Your task to perform on an android device: Empty the shopping cart on bestbuy.com. Add "amazon basics triple a" to the cart on bestbuy.com, then select checkout. Image 0: 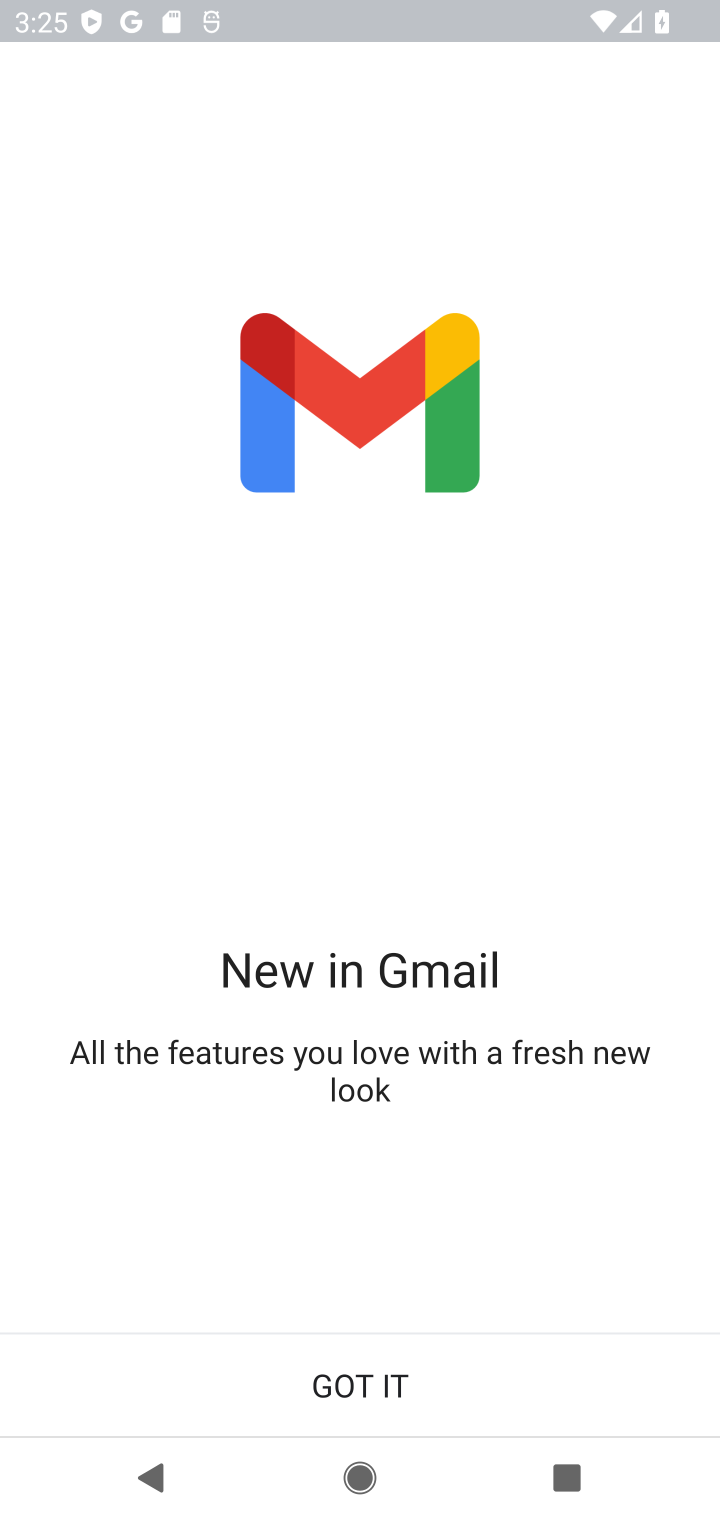
Step 0: press home button
Your task to perform on an android device: Empty the shopping cart on bestbuy.com. Add "amazon basics triple a" to the cart on bestbuy.com, then select checkout. Image 1: 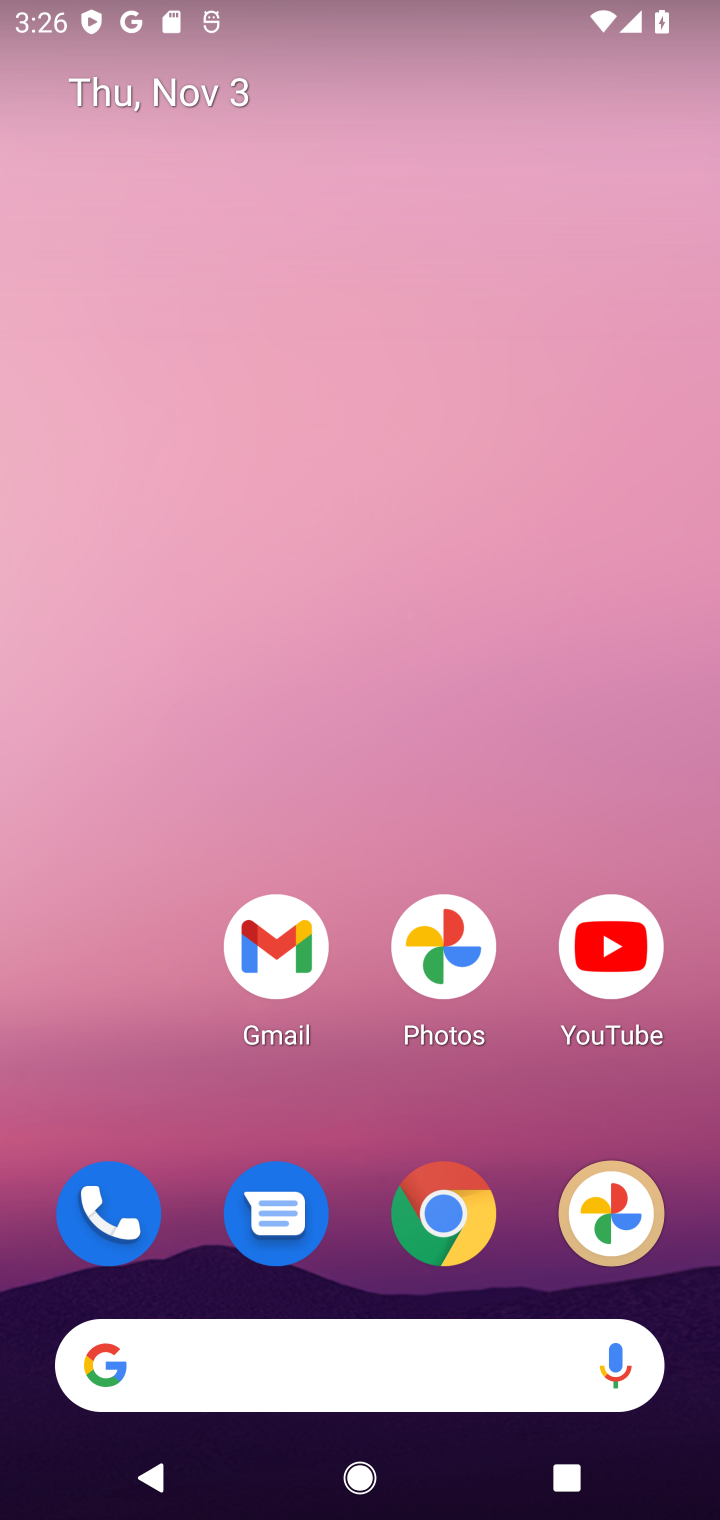
Step 1: click (429, 1217)
Your task to perform on an android device: Empty the shopping cart on bestbuy.com. Add "amazon basics triple a" to the cart on bestbuy.com, then select checkout. Image 2: 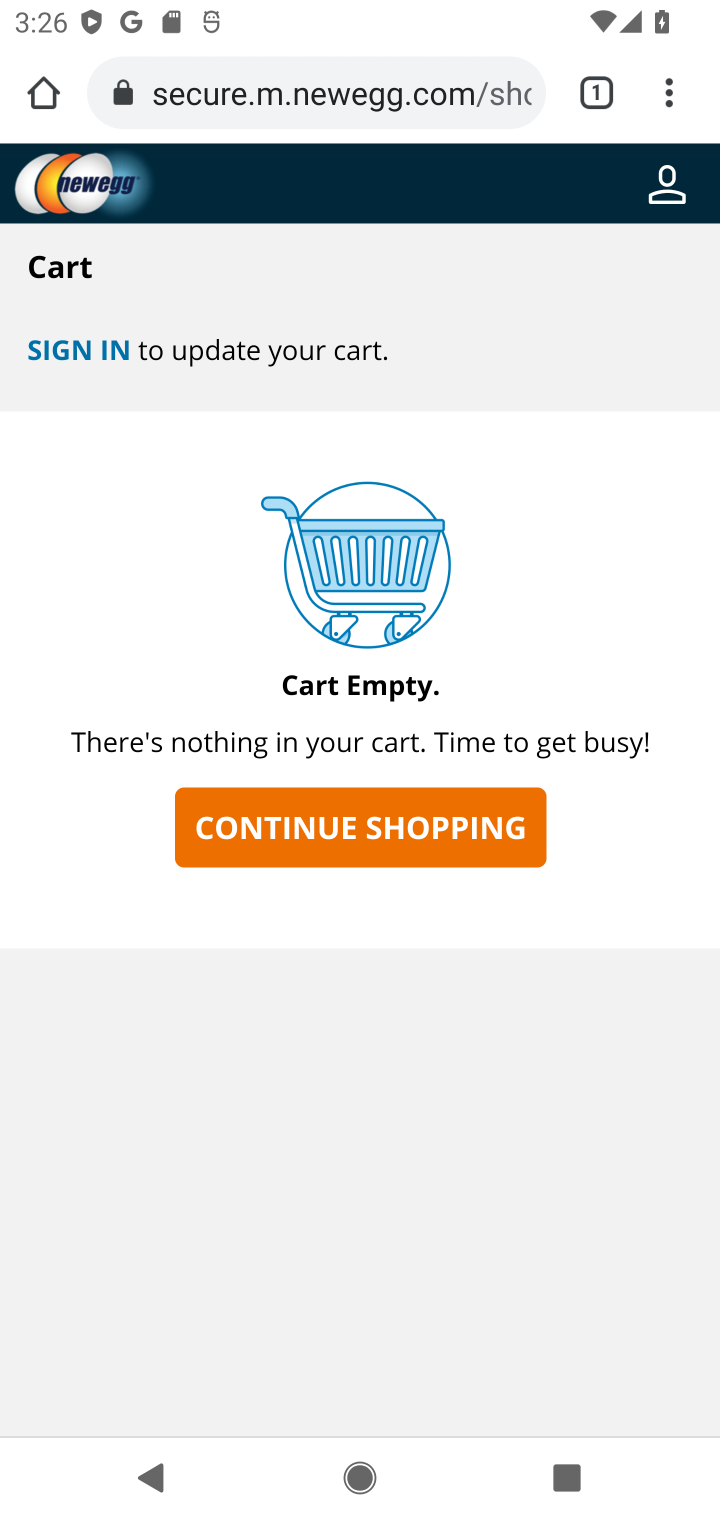
Step 2: click (329, 124)
Your task to perform on an android device: Empty the shopping cart on bestbuy.com. Add "amazon basics triple a" to the cart on bestbuy.com, then select checkout. Image 3: 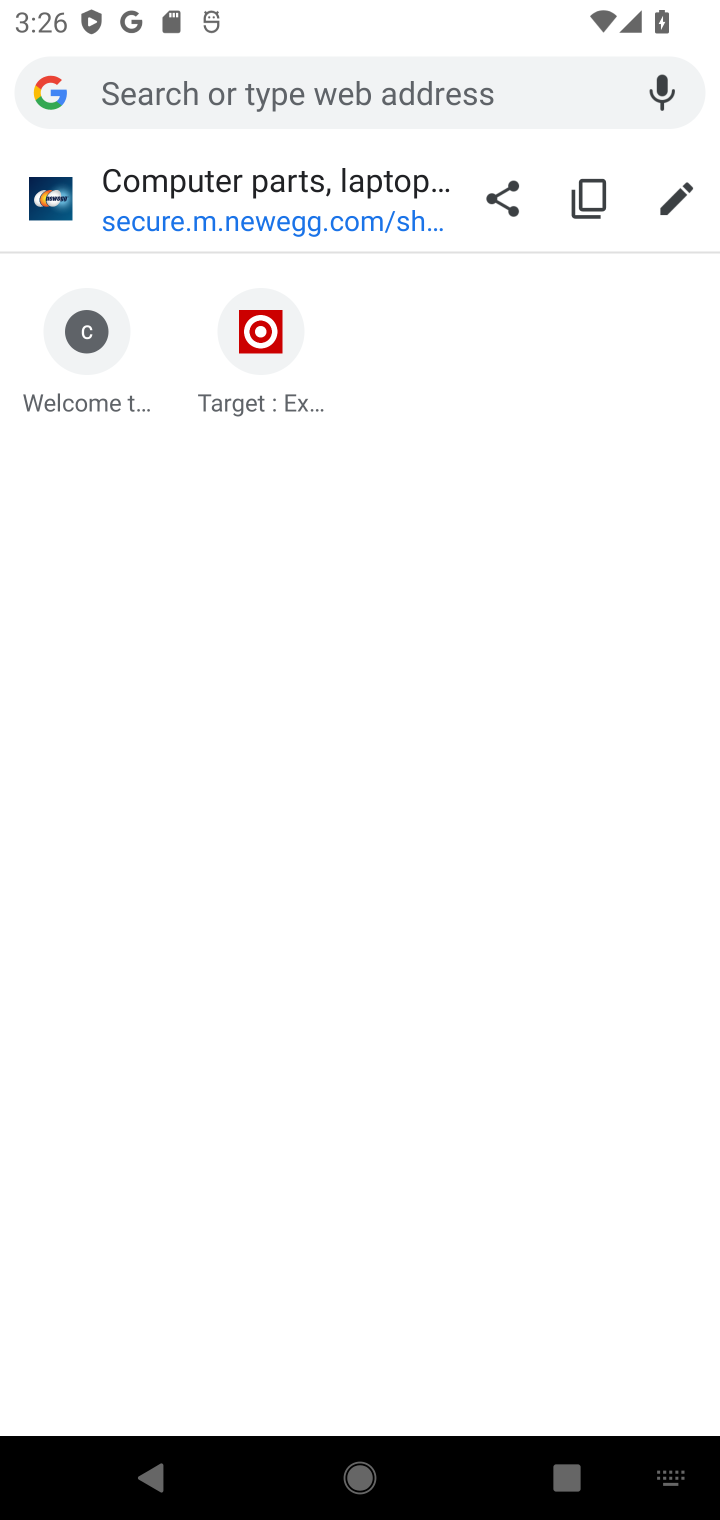
Step 3: type "bestbuy.com"
Your task to perform on an android device: Empty the shopping cart on bestbuy.com. Add "amazon basics triple a" to the cart on bestbuy.com, then select checkout. Image 4: 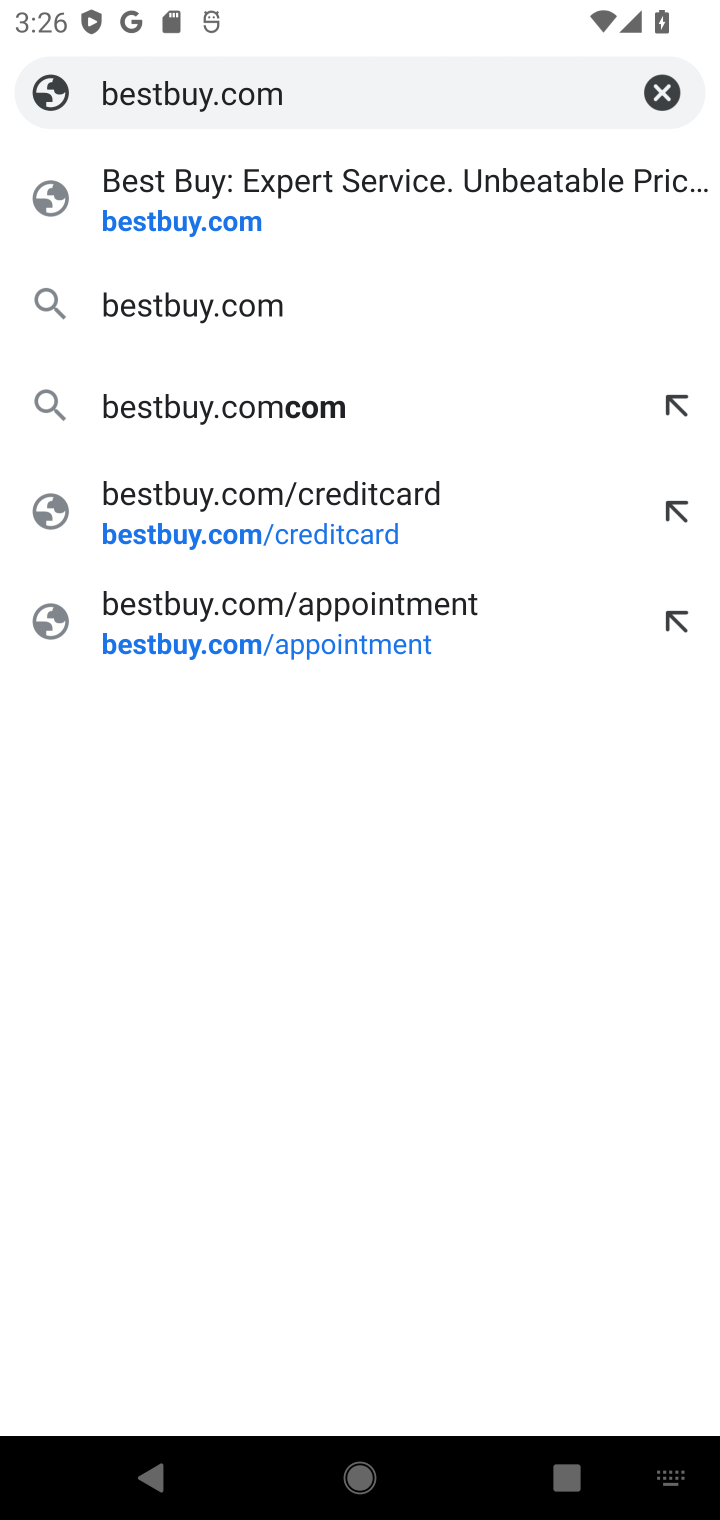
Step 4: click (141, 240)
Your task to perform on an android device: Empty the shopping cart on bestbuy.com. Add "amazon basics triple a" to the cart on bestbuy.com, then select checkout. Image 5: 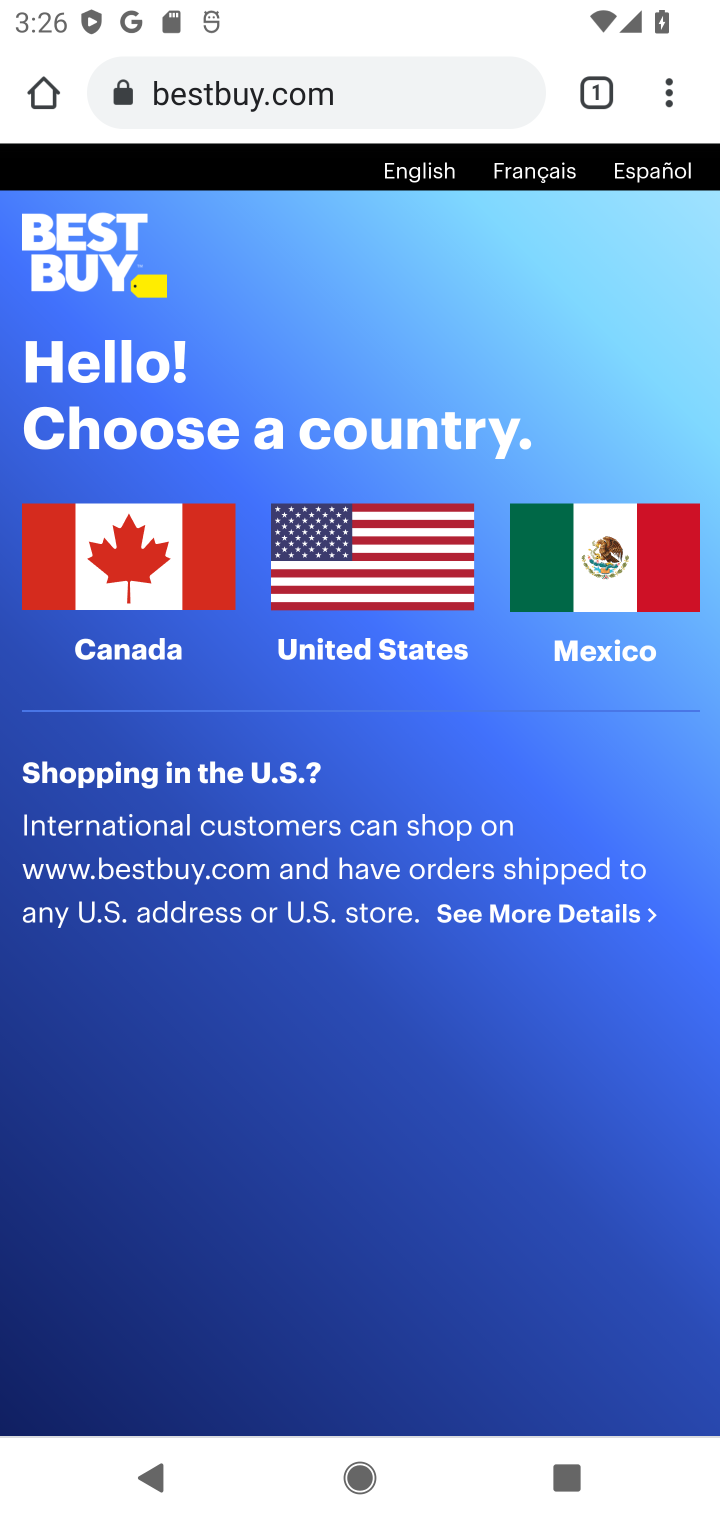
Step 5: click (313, 564)
Your task to perform on an android device: Empty the shopping cart on bestbuy.com. Add "amazon basics triple a" to the cart on bestbuy.com, then select checkout. Image 6: 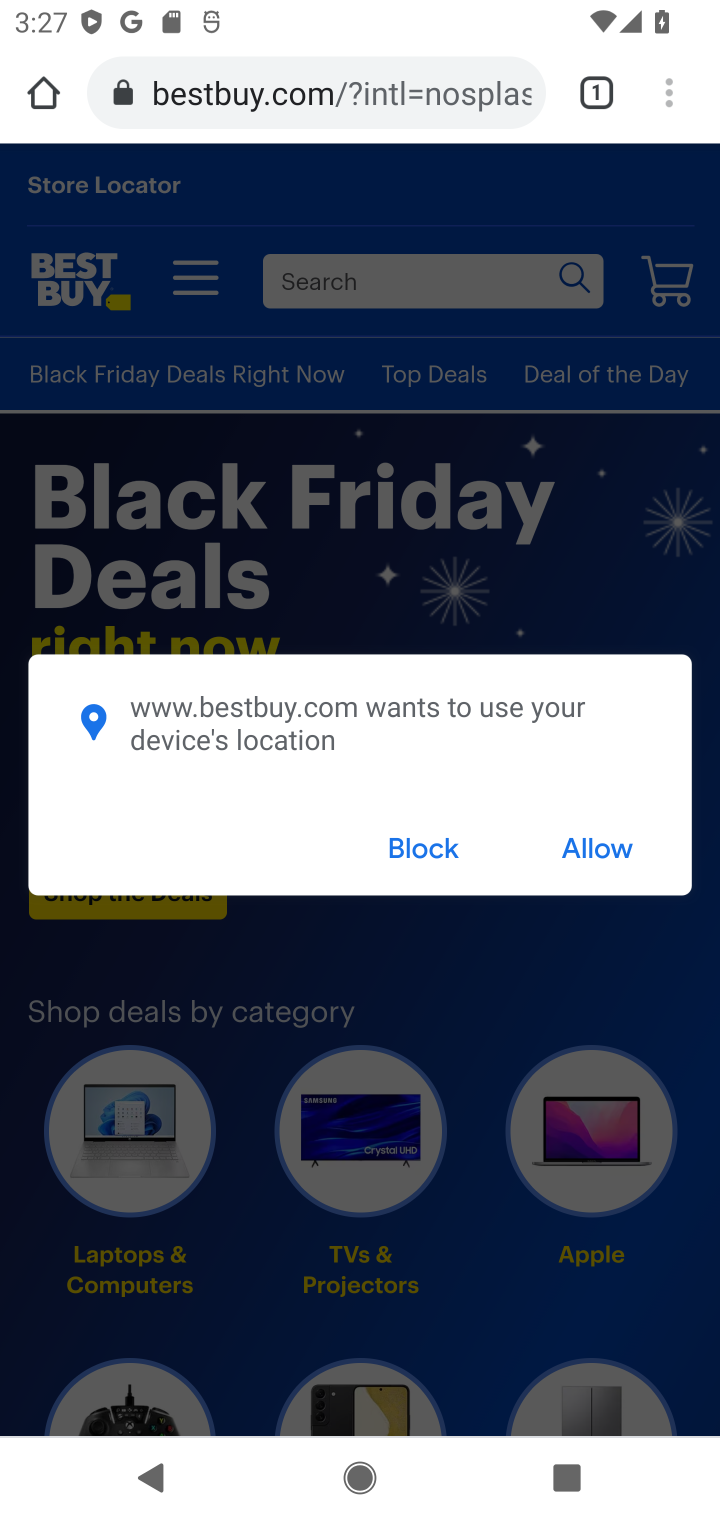
Step 6: click (398, 848)
Your task to perform on an android device: Empty the shopping cart on bestbuy.com. Add "amazon basics triple a" to the cart on bestbuy.com, then select checkout. Image 7: 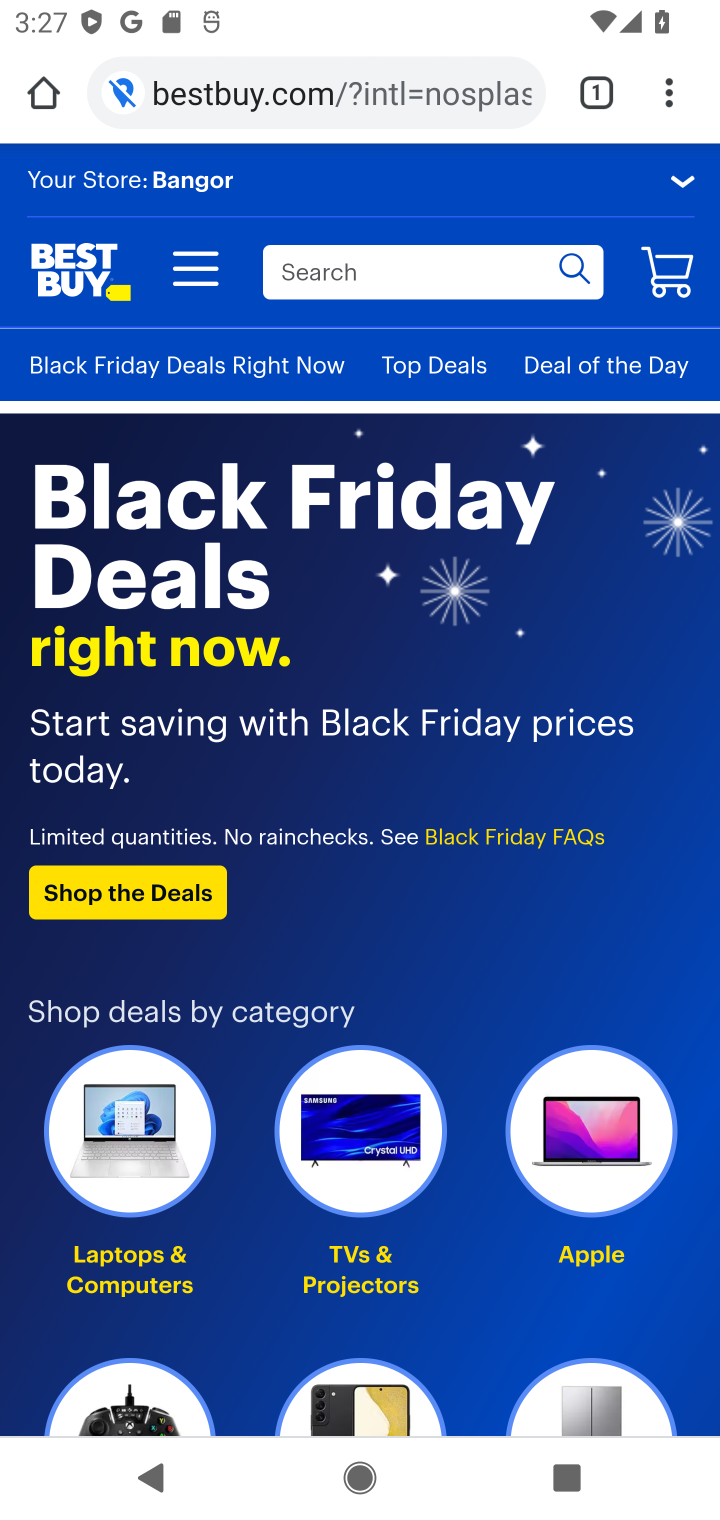
Step 7: click (676, 283)
Your task to perform on an android device: Empty the shopping cart on bestbuy.com. Add "amazon basics triple a" to the cart on bestbuy.com, then select checkout. Image 8: 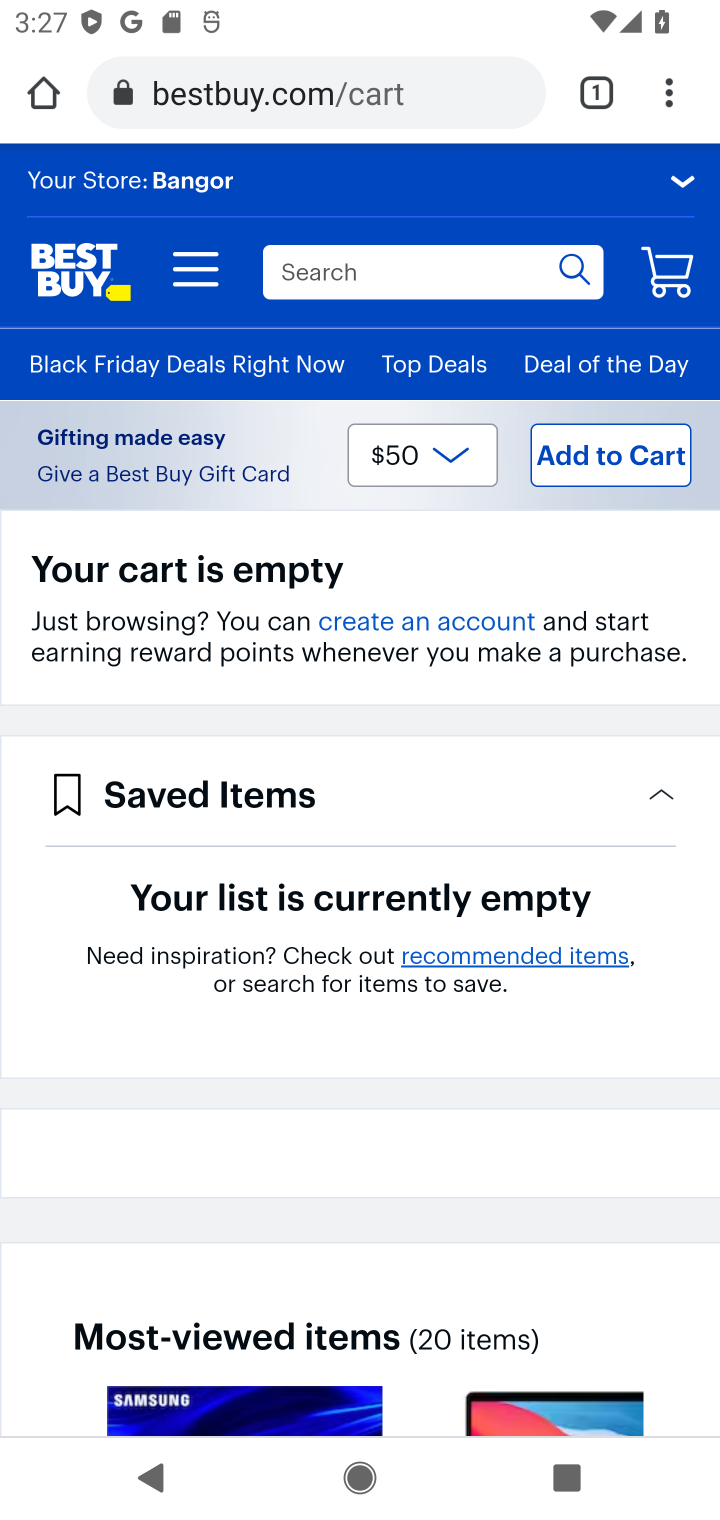
Step 8: click (403, 268)
Your task to perform on an android device: Empty the shopping cart on bestbuy.com. Add "amazon basics triple a" to the cart on bestbuy.com, then select checkout. Image 9: 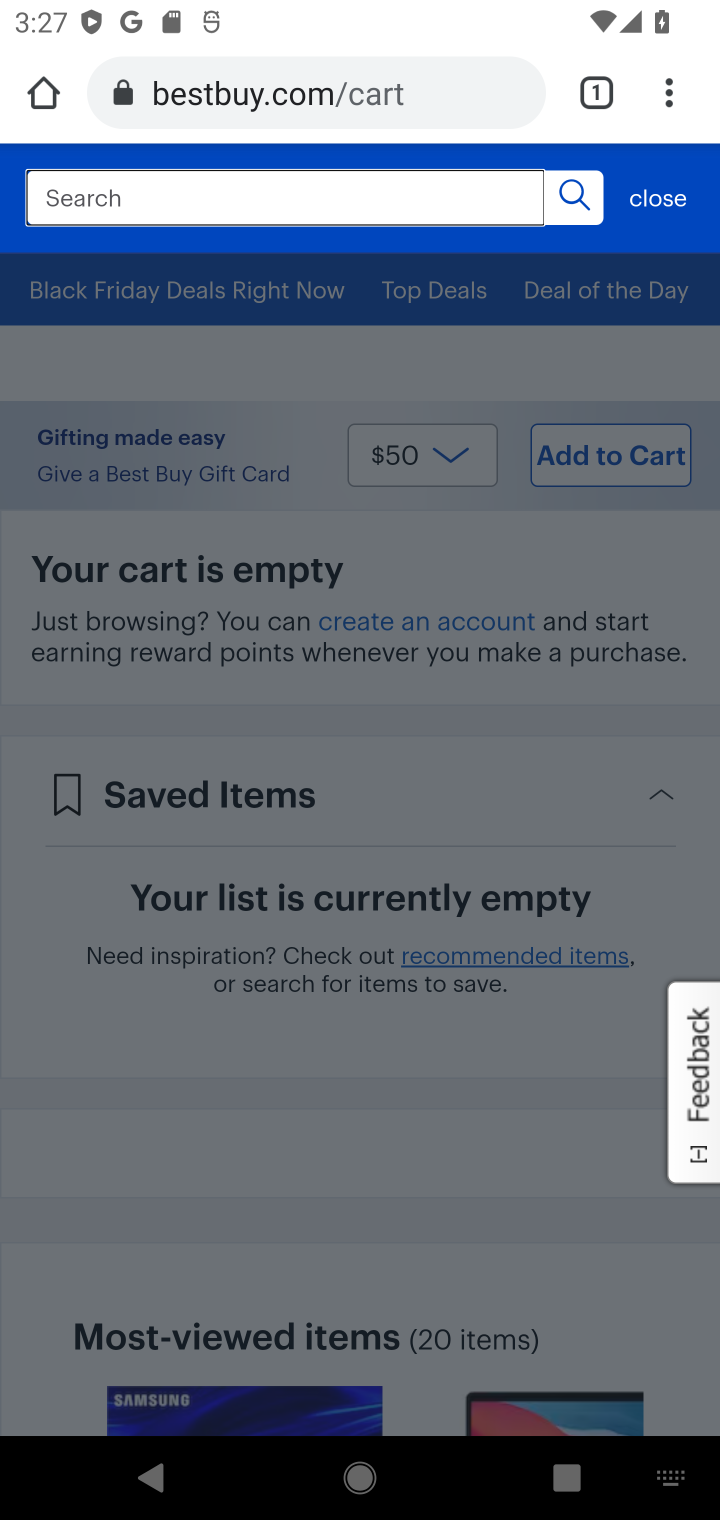
Step 9: type "amazon basics triple a"
Your task to perform on an android device: Empty the shopping cart on bestbuy.com. Add "amazon basics triple a" to the cart on bestbuy.com, then select checkout. Image 10: 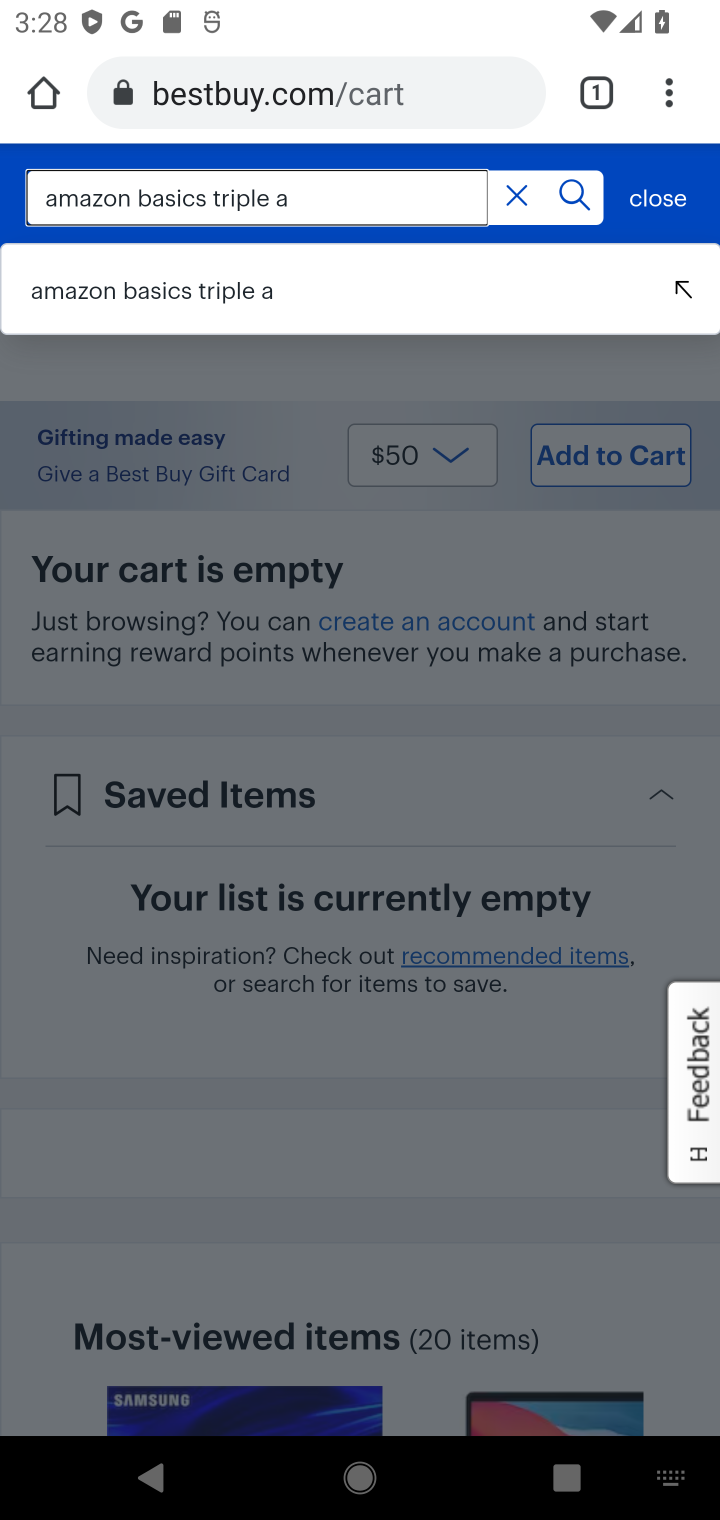
Step 10: click (205, 305)
Your task to perform on an android device: Empty the shopping cart on bestbuy.com. Add "amazon basics triple a" to the cart on bestbuy.com, then select checkout. Image 11: 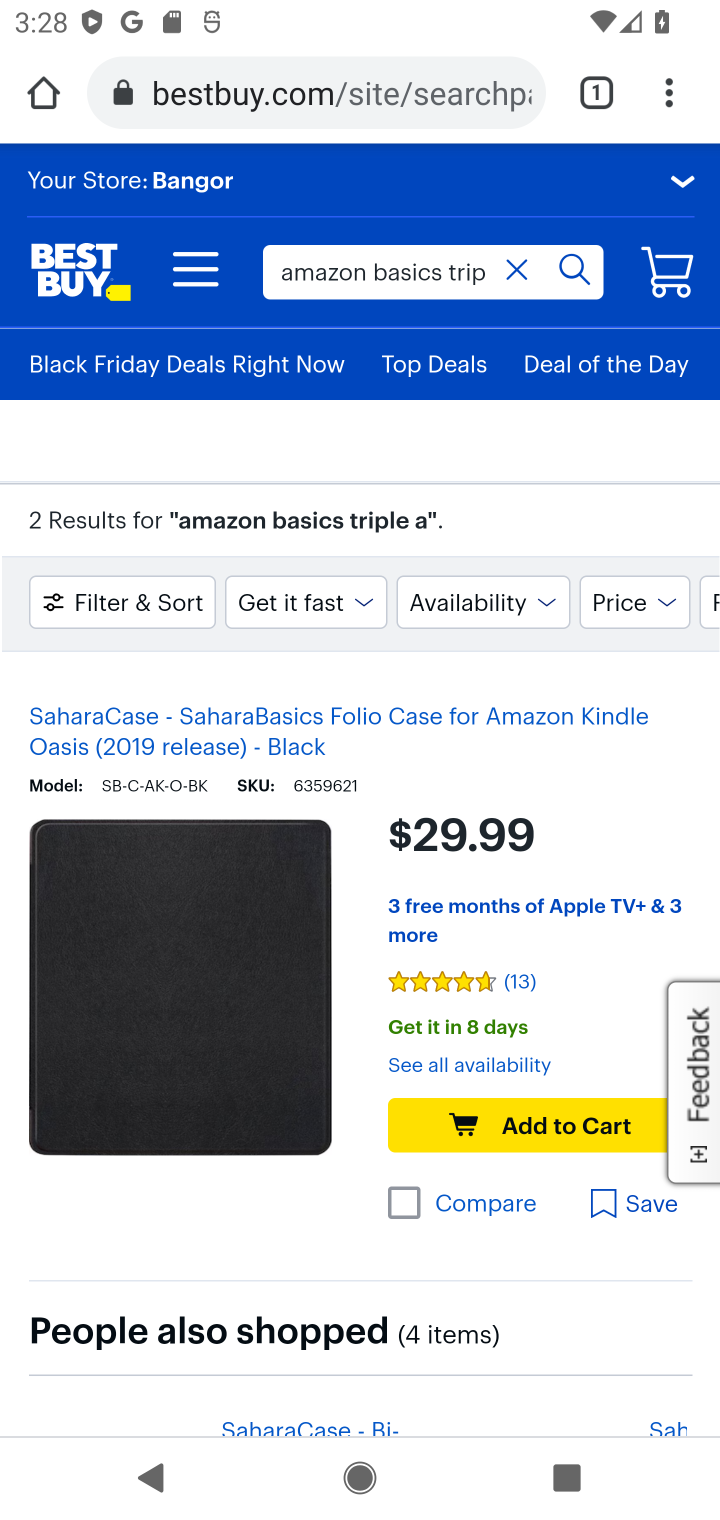
Step 11: task complete